Your task to perform on an android device: When is my next meeting? Image 0: 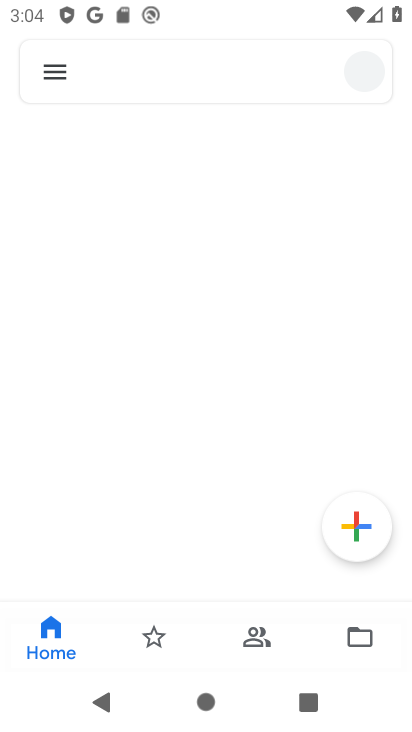
Step 0: drag from (324, 565) to (292, 286)
Your task to perform on an android device: When is my next meeting? Image 1: 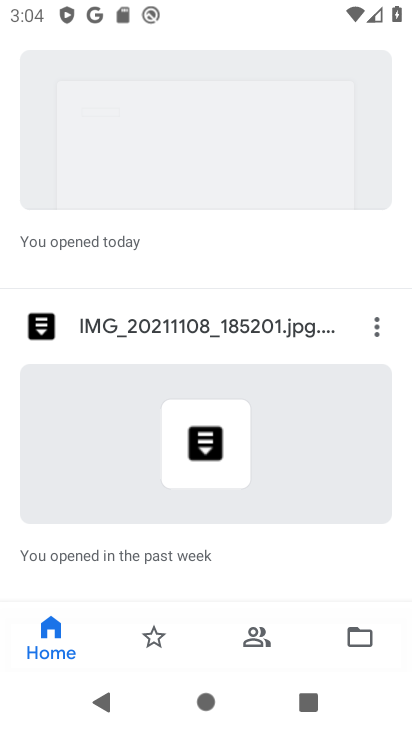
Step 1: press home button
Your task to perform on an android device: When is my next meeting? Image 2: 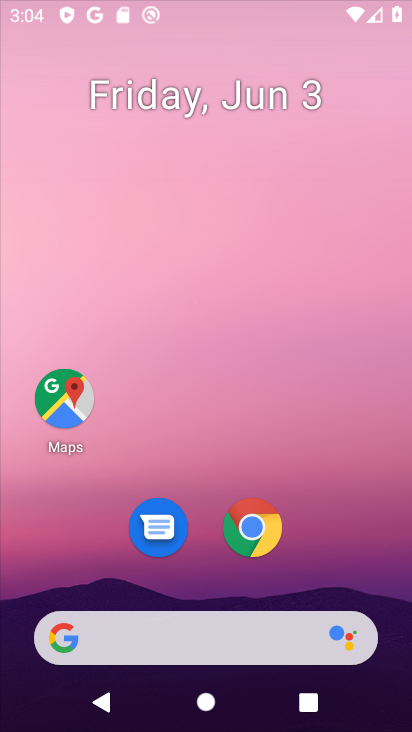
Step 2: drag from (315, 544) to (289, 256)
Your task to perform on an android device: When is my next meeting? Image 3: 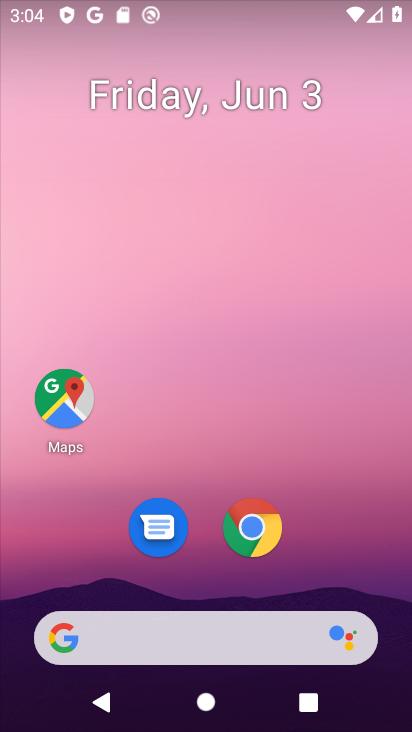
Step 3: drag from (188, 563) to (188, 251)
Your task to perform on an android device: When is my next meeting? Image 4: 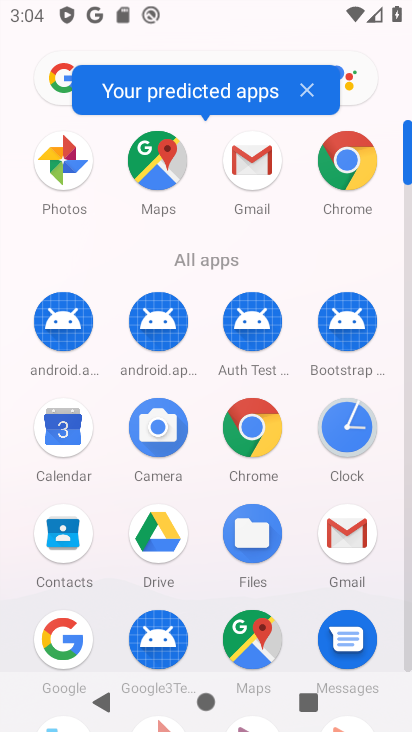
Step 4: drag from (116, 585) to (92, 287)
Your task to perform on an android device: When is my next meeting? Image 5: 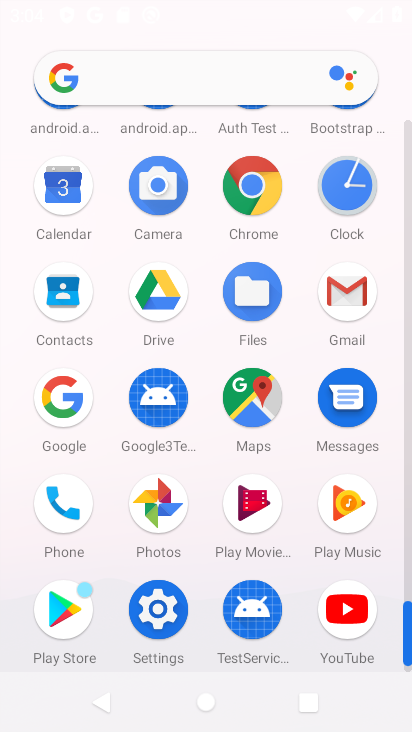
Step 5: drag from (222, 535) to (203, 343)
Your task to perform on an android device: When is my next meeting? Image 6: 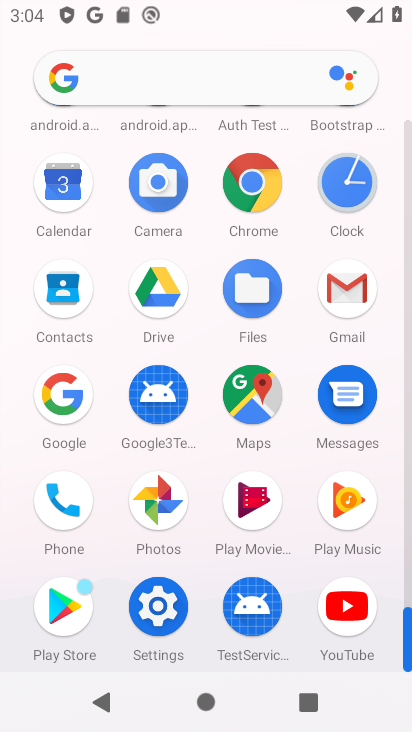
Step 6: drag from (212, 298) to (220, 623)
Your task to perform on an android device: When is my next meeting? Image 7: 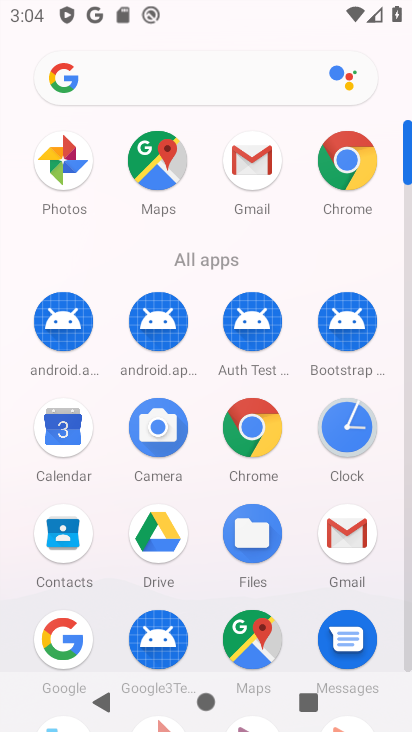
Step 7: click (48, 427)
Your task to perform on an android device: When is my next meeting? Image 8: 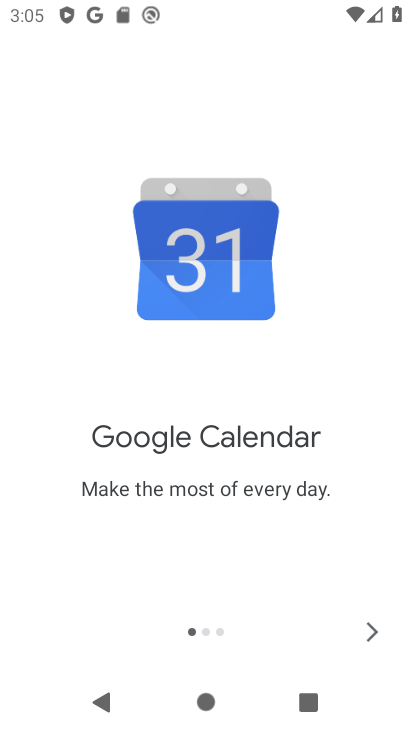
Step 8: click (380, 618)
Your task to perform on an android device: When is my next meeting? Image 9: 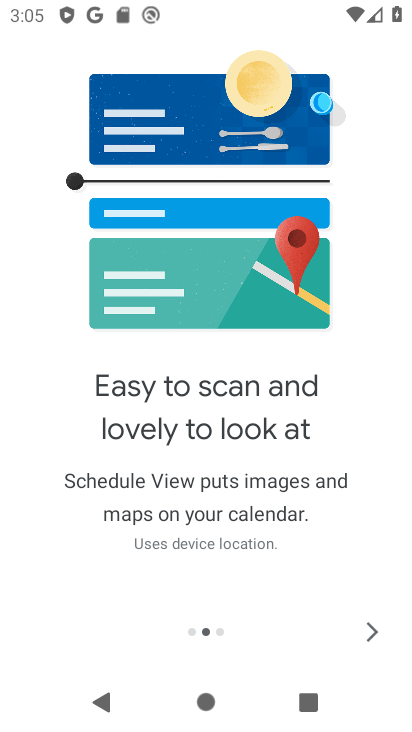
Step 9: click (369, 628)
Your task to perform on an android device: When is my next meeting? Image 10: 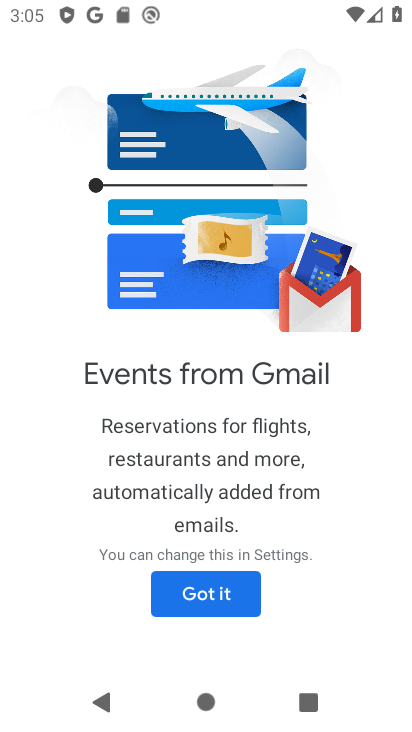
Step 10: click (197, 591)
Your task to perform on an android device: When is my next meeting? Image 11: 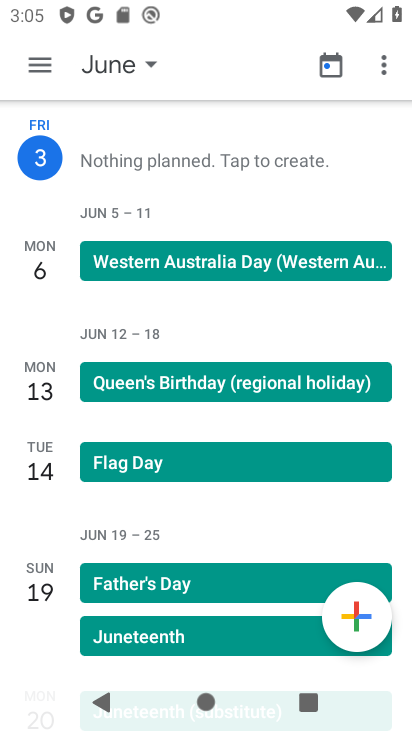
Step 11: task complete